Your task to perform on an android device: Is it going to rain today? Image 0: 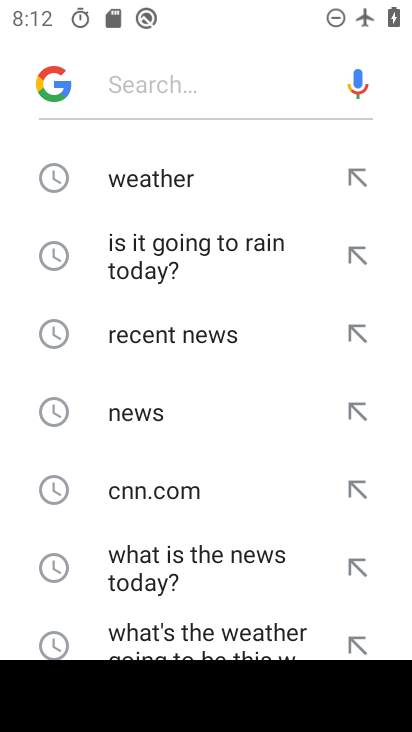
Step 0: press home button
Your task to perform on an android device: Is it going to rain today? Image 1: 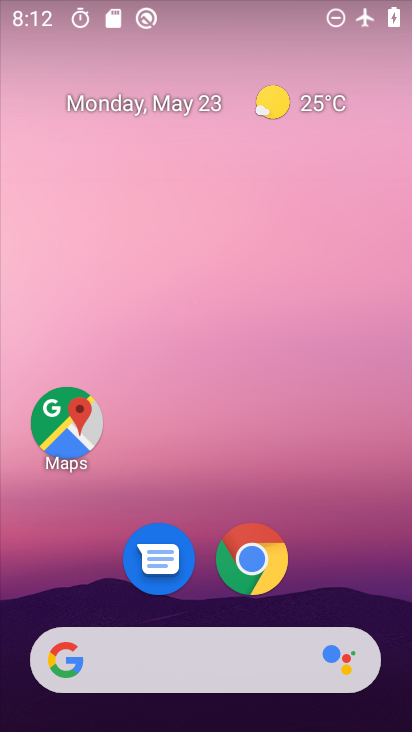
Step 1: drag from (381, 622) to (290, 41)
Your task to perform on an android device: Is it going to rain today? Image 2: 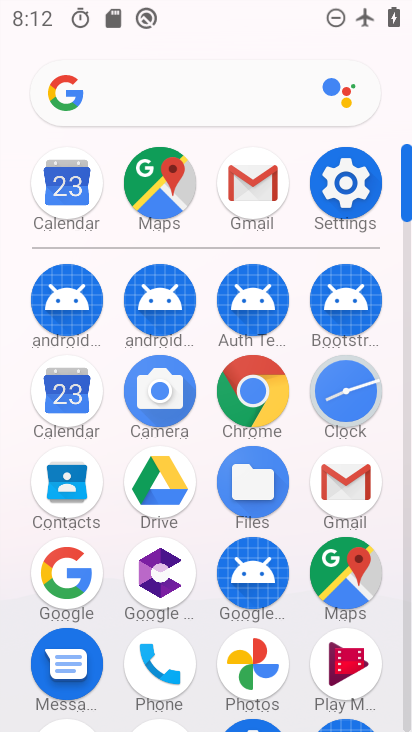
Step 2: click (57, 598)
Your task to perform on an android device: Is it going to rain today? Image 3: 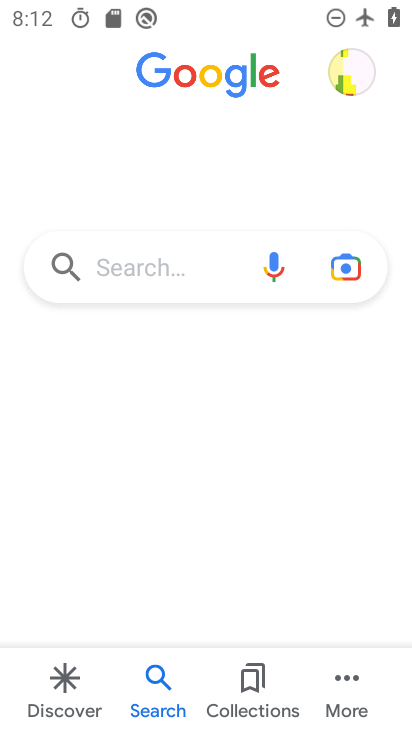
Step 3: click (131, 263)
Your task to perform on an android device: Is it going to rain today? Image 4: 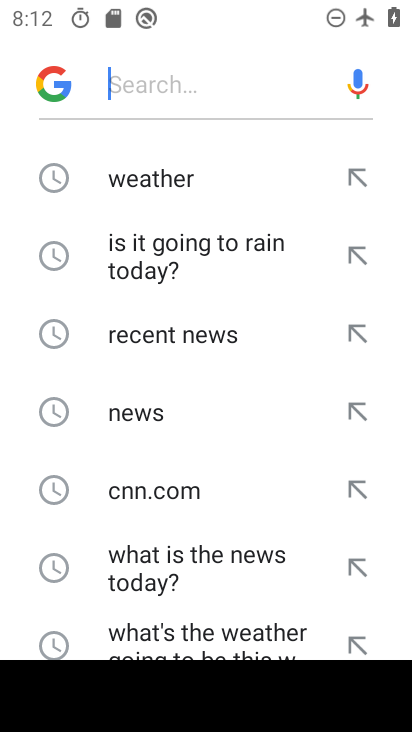
Step 4: click (208, 239)
Your task to perform on an android device: Is it going to rain today? Image 5: 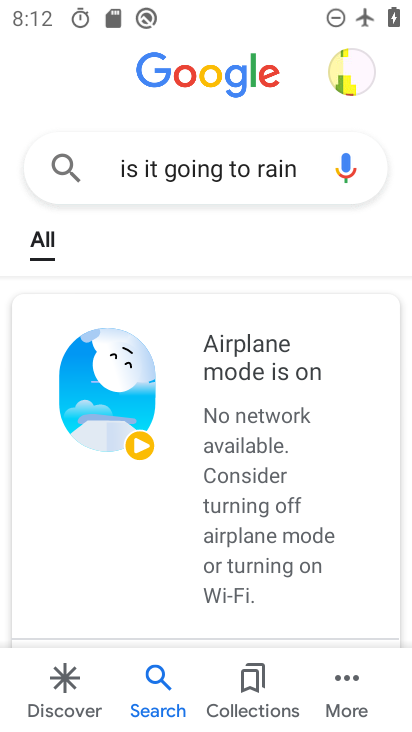
Step 5: task complete